Your task to perform on an android device: toggle data saver in the chrome app Image 0: 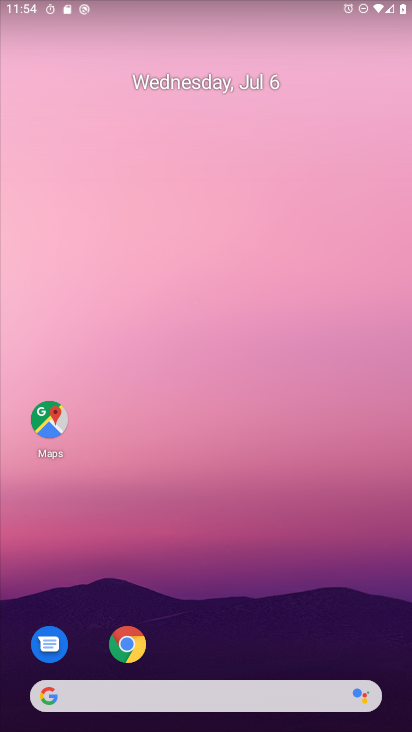
Step 0: drag from (214, 636) to (300, 104)
Your task to perform on an android device: toggle data saver in the chrome app Image 1: 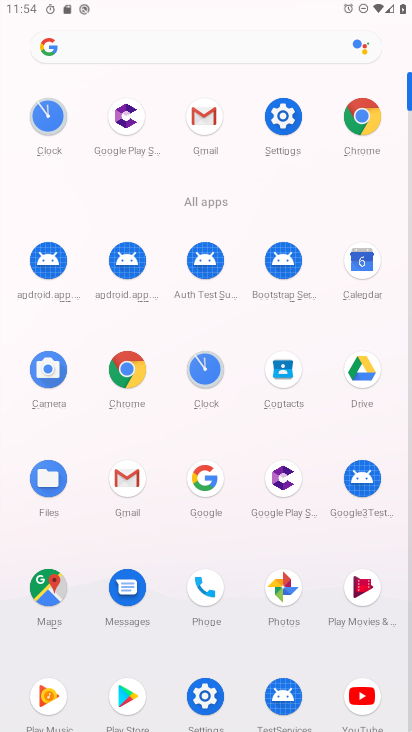
Step 1: click (364, 112)
Your task to perform on an android device: toggle data saver in the chrome app Image 2: 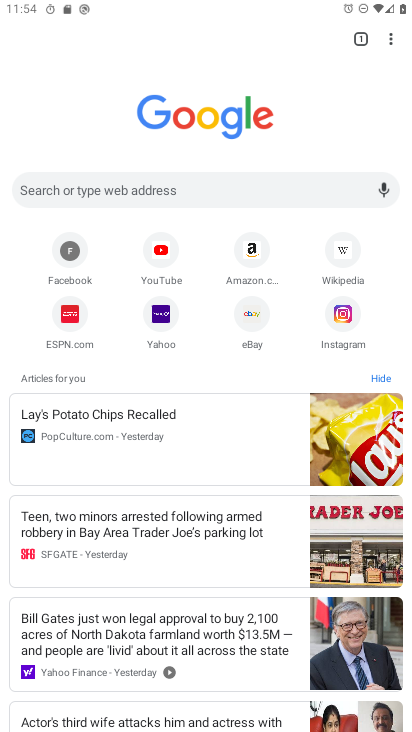
Step 2: click (386, 38)
Your task to perform on an android device: toggle data saver in the chrome app Image 3: 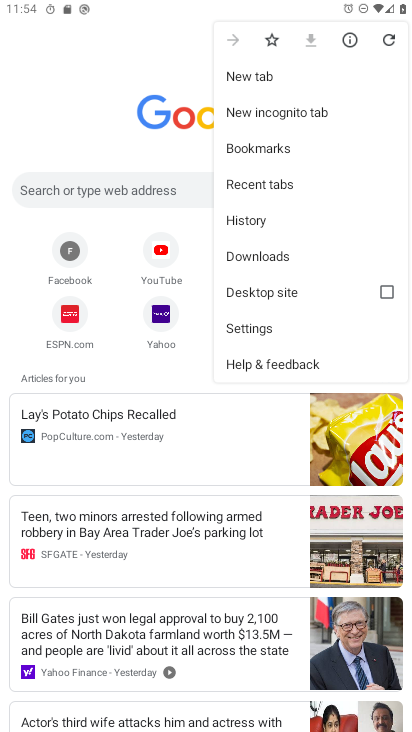
Step 3: click (266, 331)
Your task to perform on an android device: toggle data saver in the chrome app Image 4: 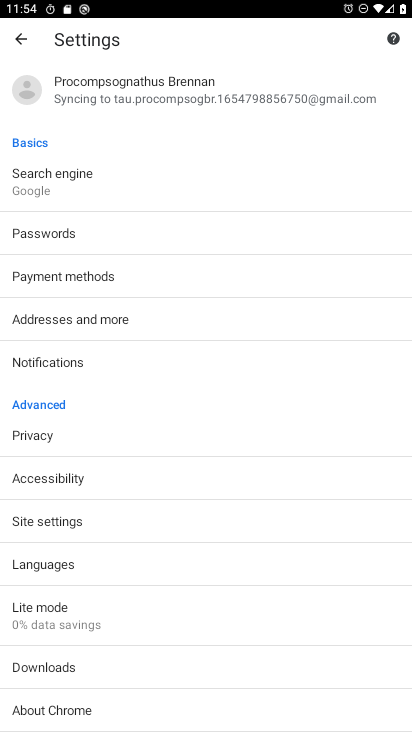
Step 4: drag from (138, 634) to (165, 371)
Your task to perform on an android device: toggle data saver in the chrome app Image 5: 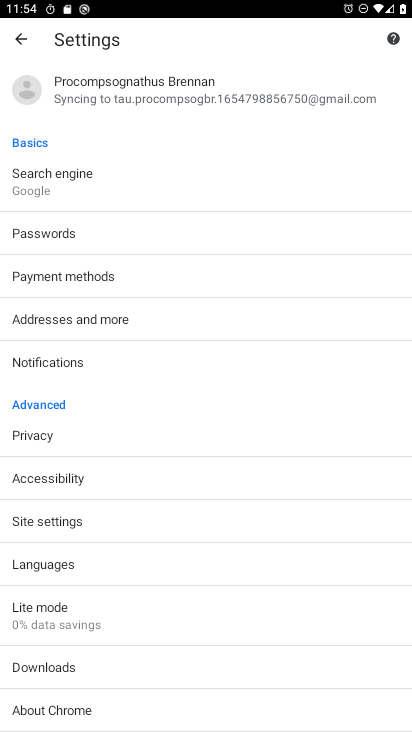
Step 5: click (44, 612)
Your task to perform on an android device: toggle data saver in the chrome app Image 6: 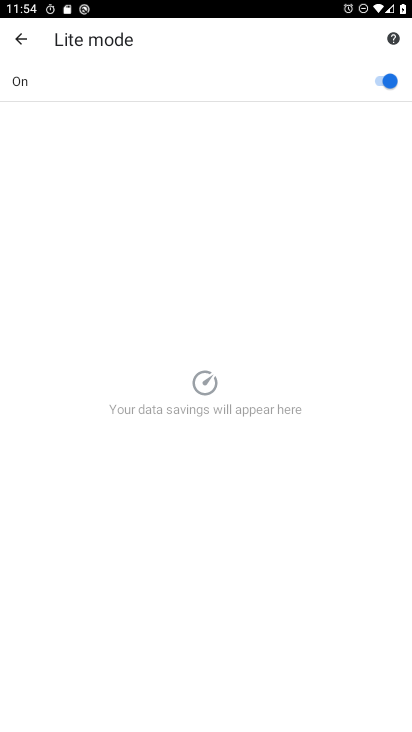
Step 6: click (389, 82)
Your task to perform on an android device: toggle data saver in the chrome app Image 7: 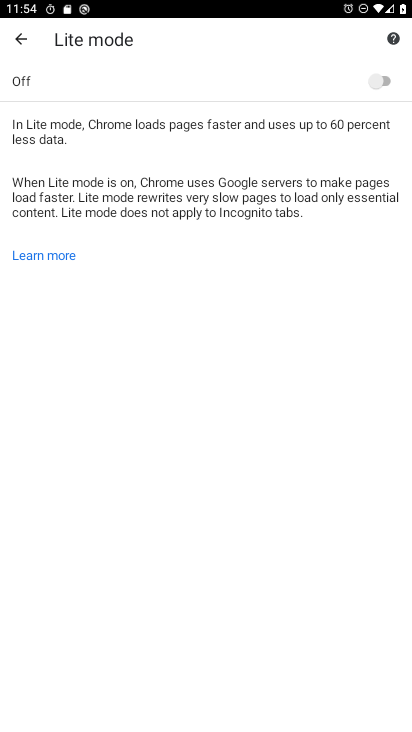
Step 7: task complete